Your task to perform on an android device: Open the map Image 0: 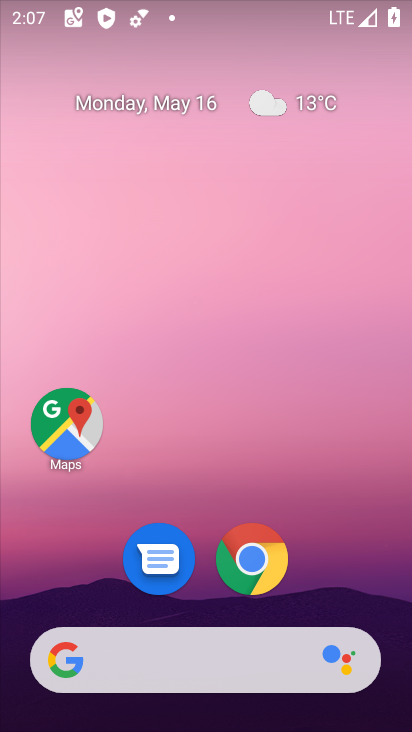
Step 0: click (45, 410)
Your task to perform on an android device: Open the map Image 1: 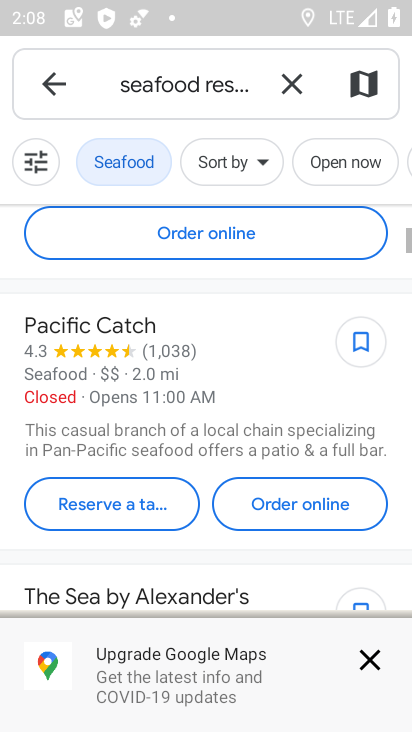
Step 1: task complete